Your task to perform on an android device: Go to internet settings Image 0: 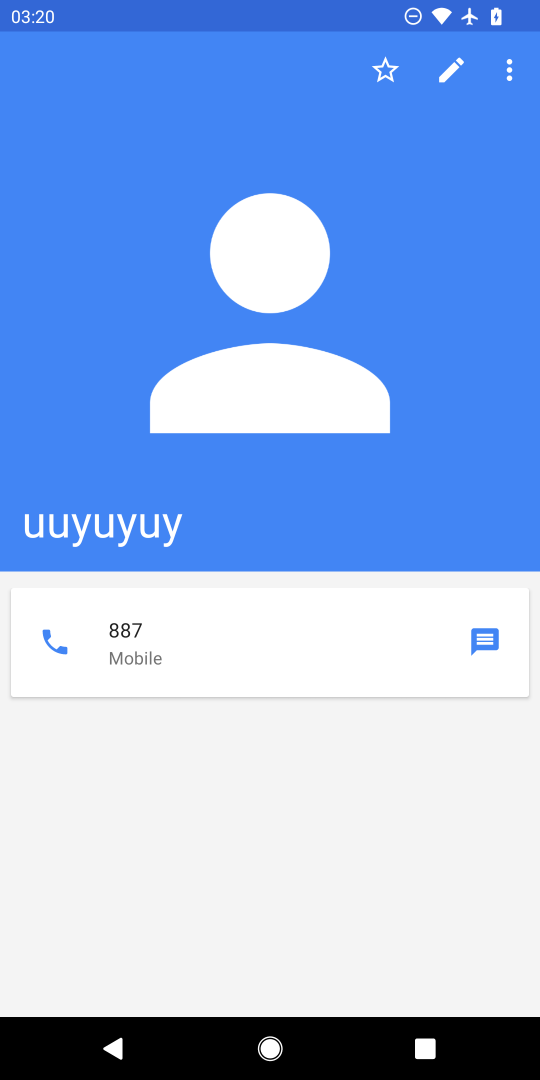
Step 0: press home button
Your task to perform on an android device: Go to internet settings Image 1: 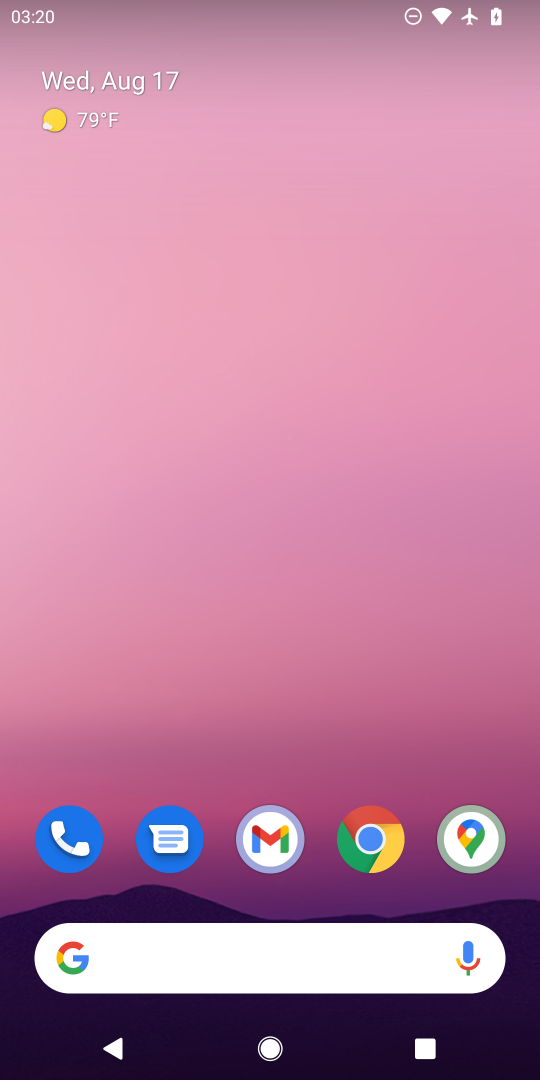
Step 1: drag from (343, 678) to (344, 123)
Your task to perform on an android device: Go to internet settings Image 2: 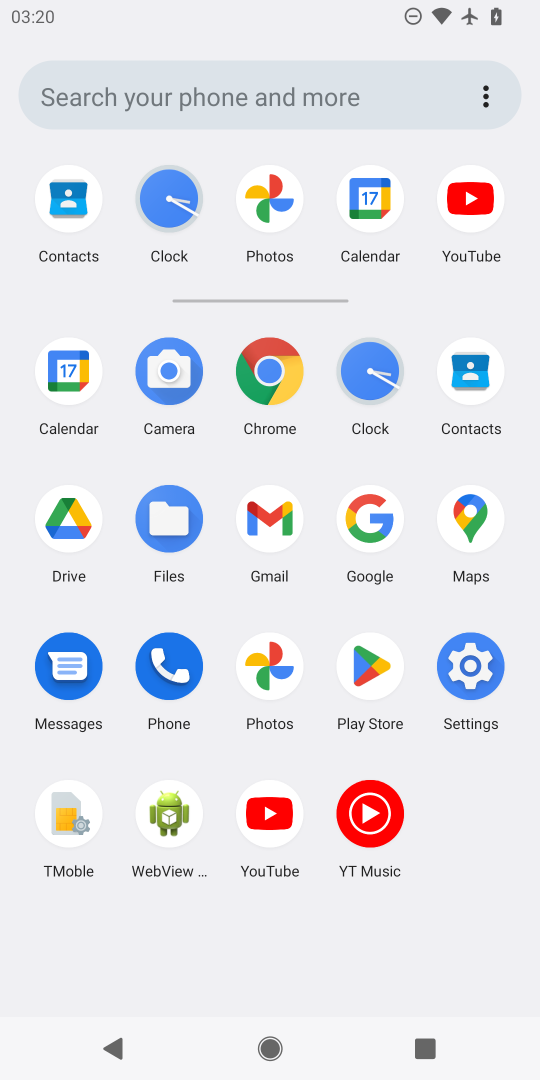
Step 2: click (471, 661)
Your task to perform on an android device: Go to internet settings Image 3: 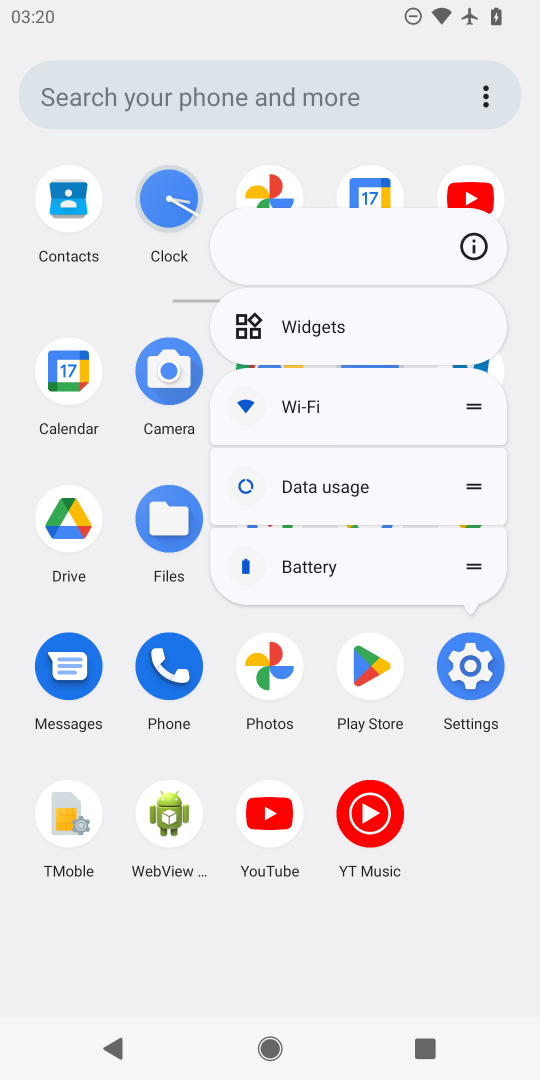
Step 3: click (463, 664)
Your task to perform on an android device: Go to internet settings Image 4: 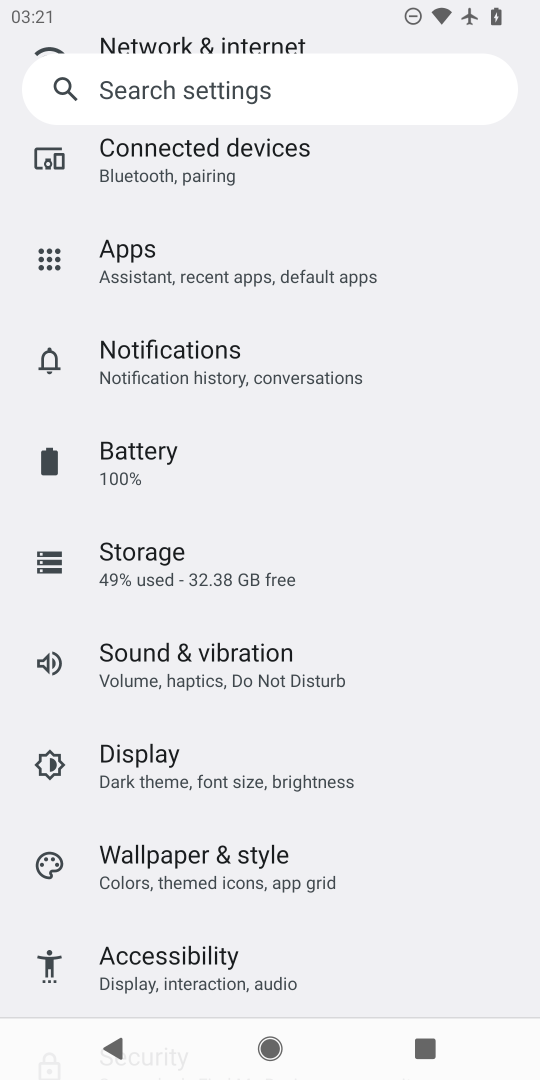
Step 4: drag from (201, 219) to (203, 764)
Your task to perform on an android device: Go to internet settings Image 5: 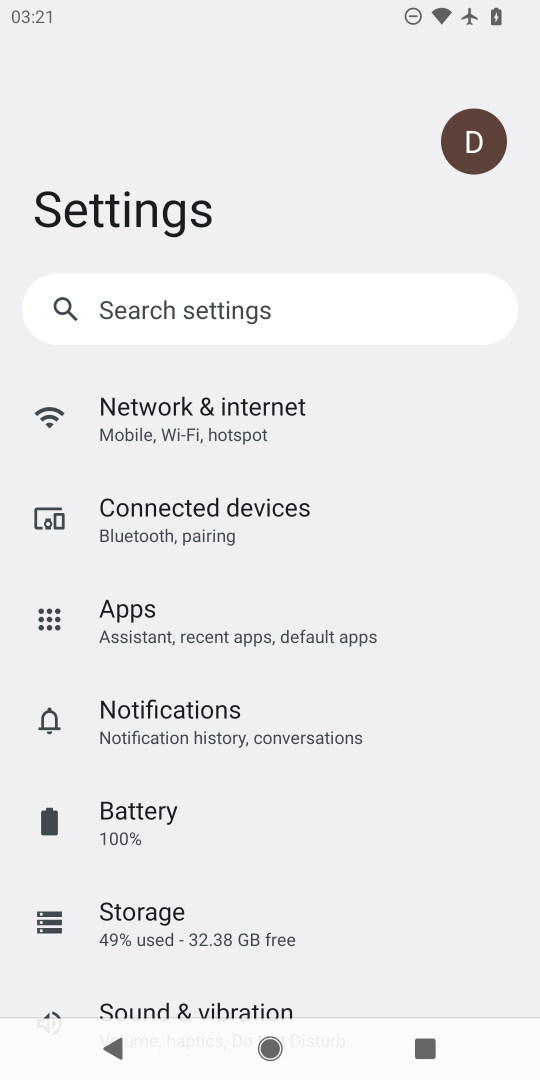
Step 5: click (167, 421)
Your task to perform on an android device: Go to internet settings Image 6: 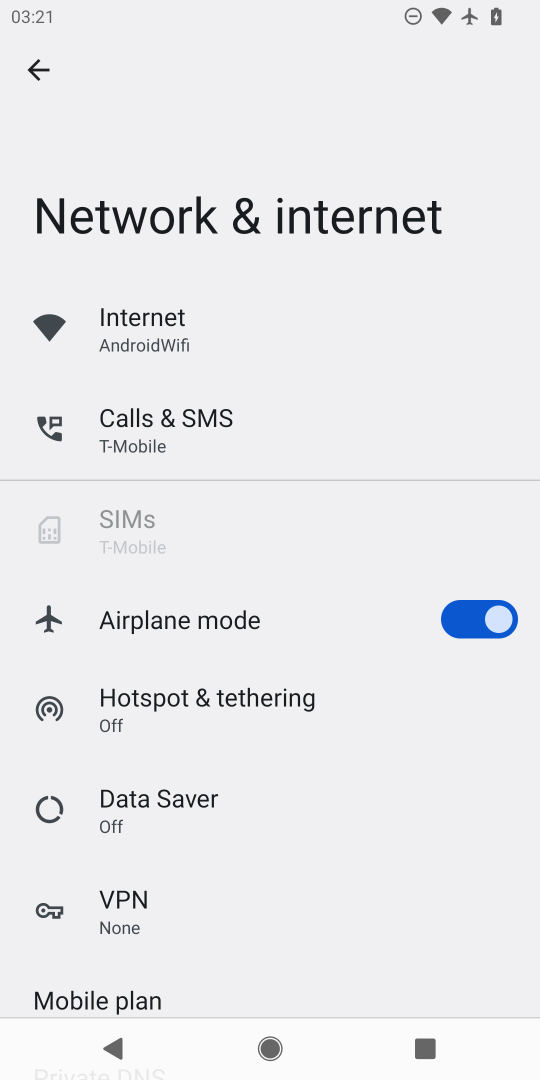
Step 6: click (138, 327)
Your task to perform on an android device: Go to internet settings Image 7: 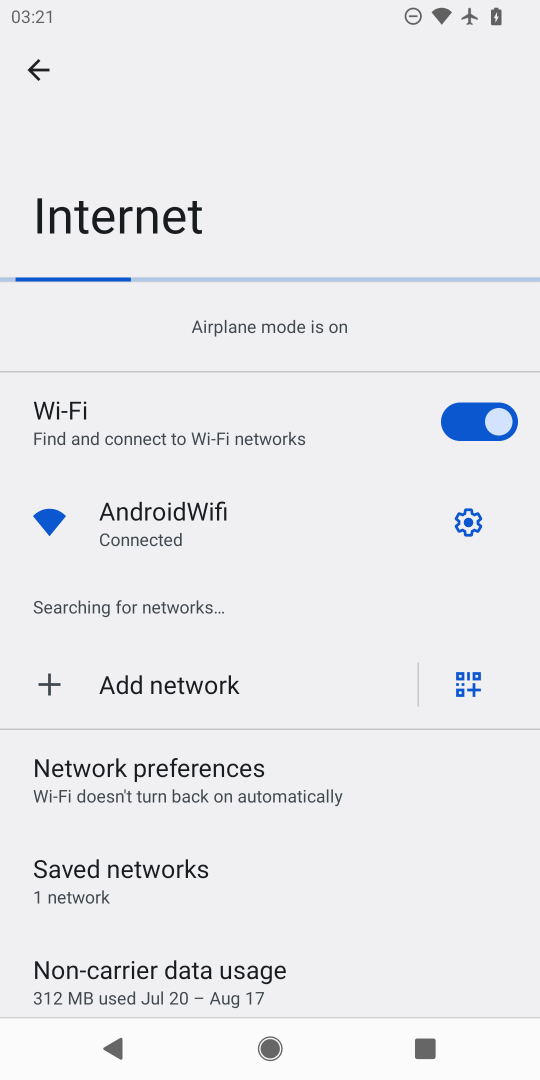
Step 7: task complete